Your task to perform on an android device: Open the map Image 0: 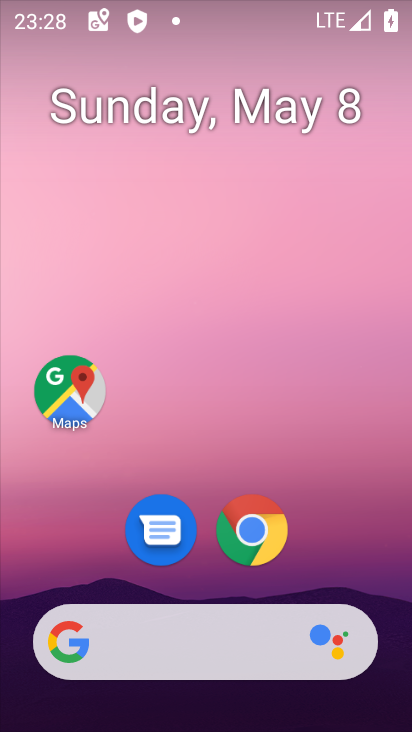
Step 0: drag from (331, 566) to (295, 159)
Your task to perform on an android device: Open the map Image 1: 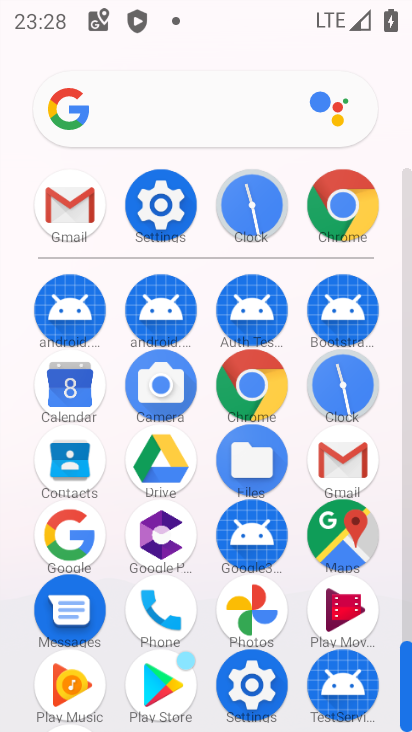
Step 1: click (330, 546)
Your task to perform on an android device: Open the map Image 2: 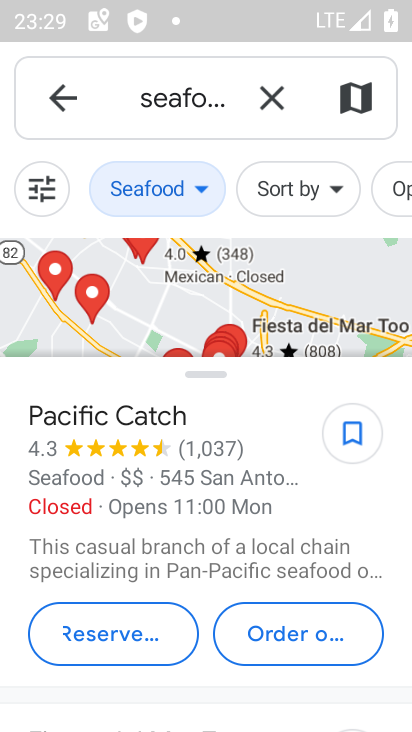
Step 2: task complete